Your task to perform on an android device: Turn off the flashlight Image 0: 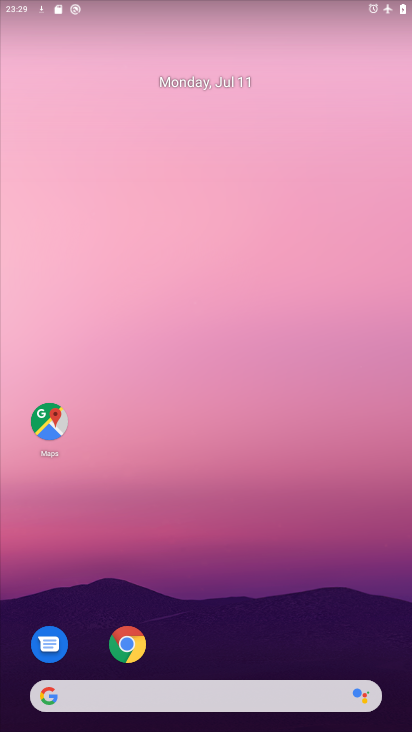
Step 0: drag from (219, 647) to (248, 207)
Your task to perform on an android device: Turn off the flashlight Image 1: 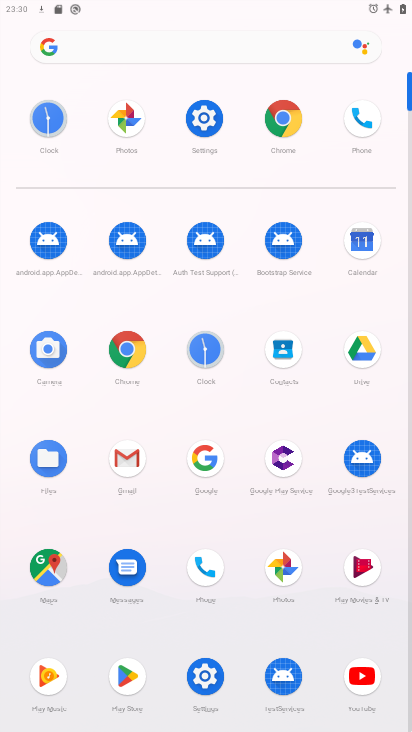
Step 1: click (215, 112)
Your task to perform on an android device: Turn off the flashlight Image 2: 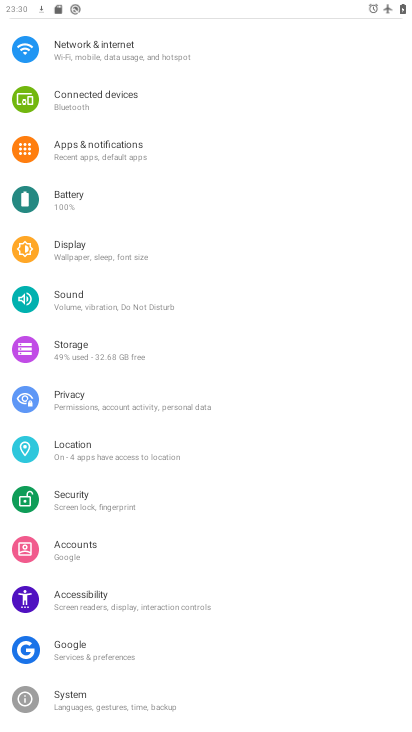
Step 2: task complete